Your task to perform on an android device: install app "Google Find My Device" Image 0: 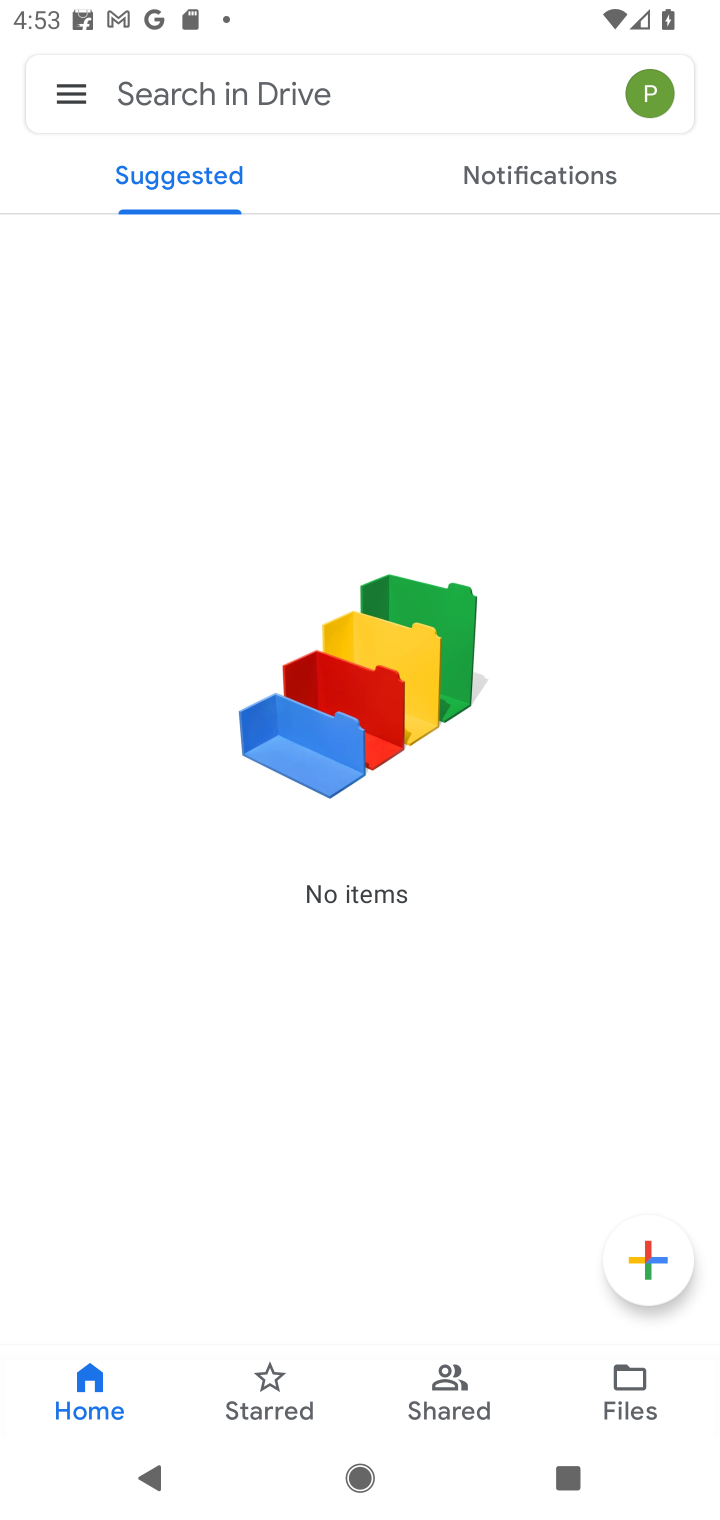
Step 0: press home button
Your task to perform on an android device: install app "Google Find My Device" Image 1: 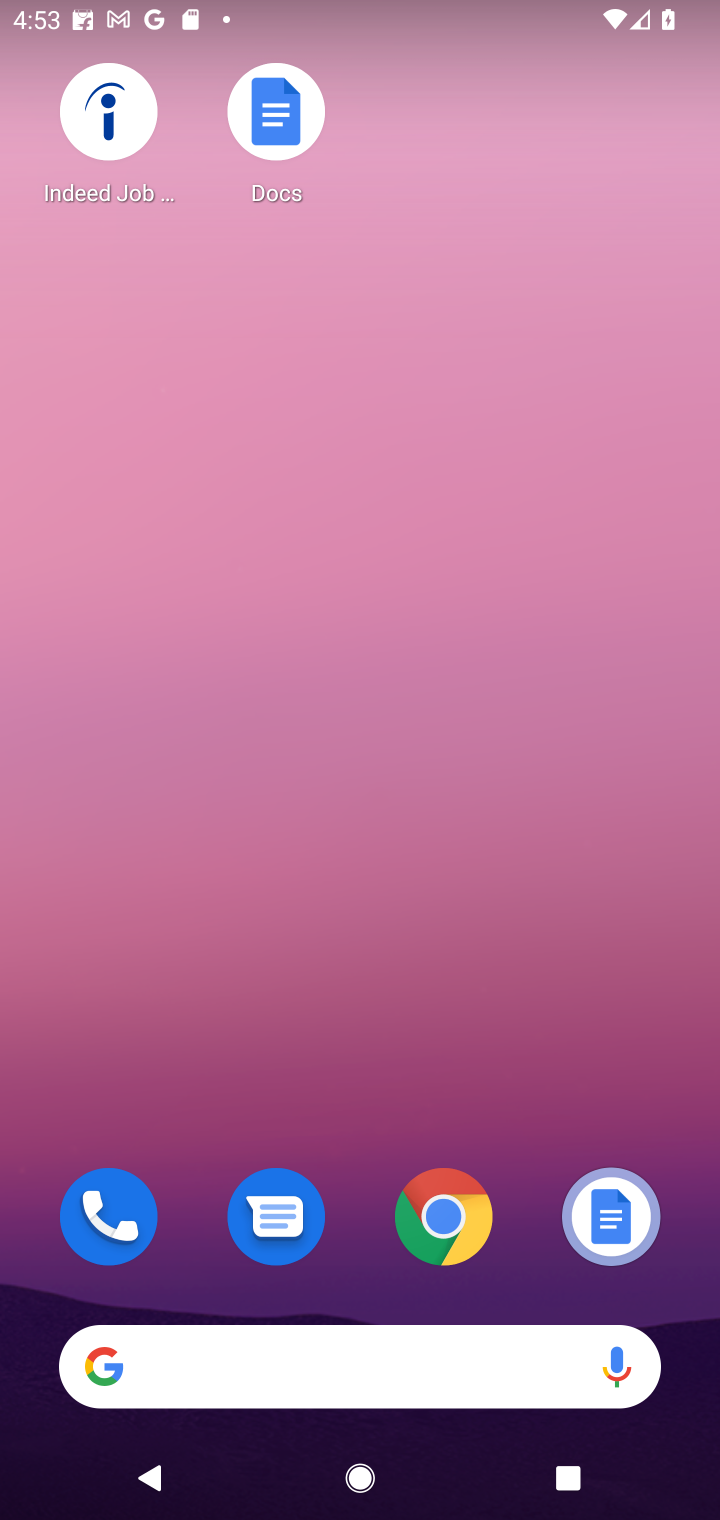
Step 1: drag from (469, 1099) to (463, 320)
Your task to perform on an android device: install app "Google Find My Device" Image 2: 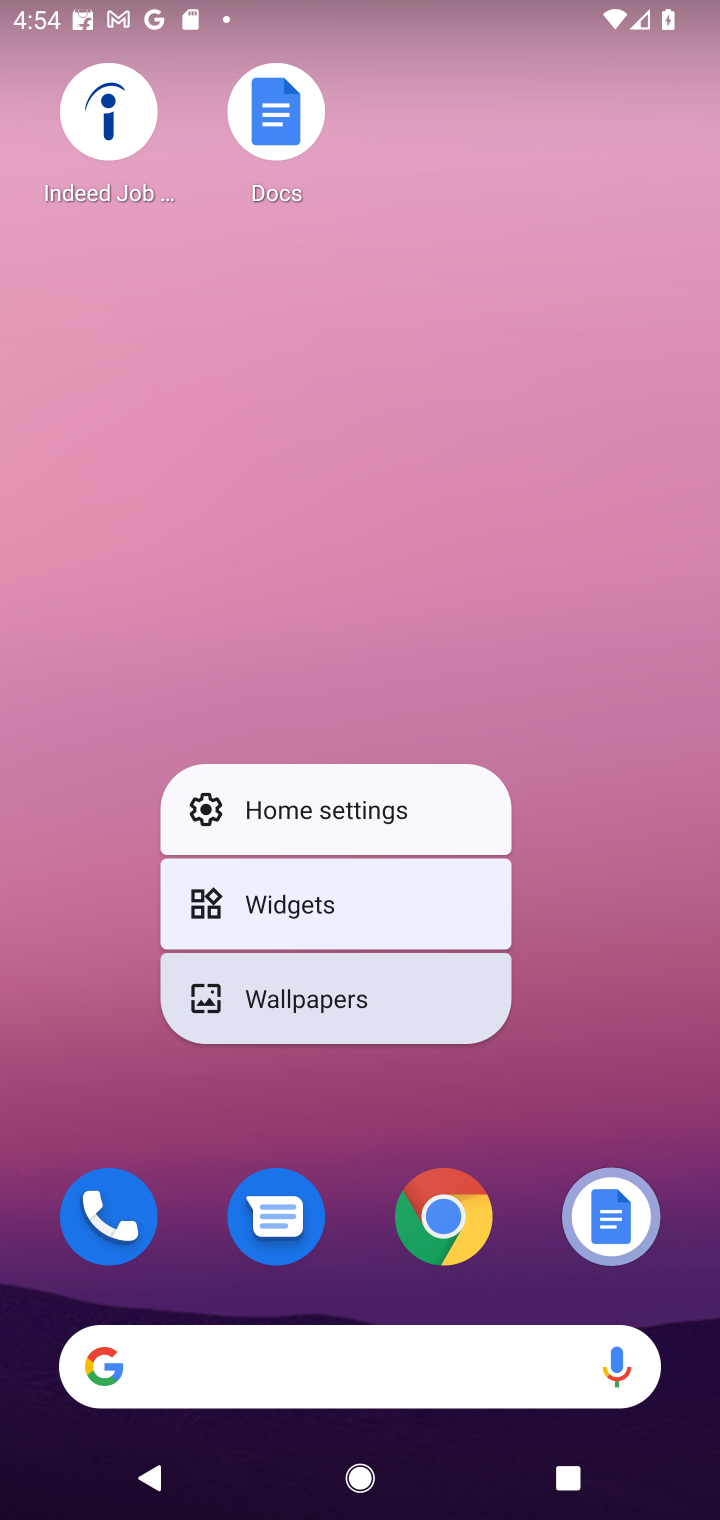
Step 2: click (398, 543)
Your task to perform on an android device: install app "Google Find My Device" Image 3: 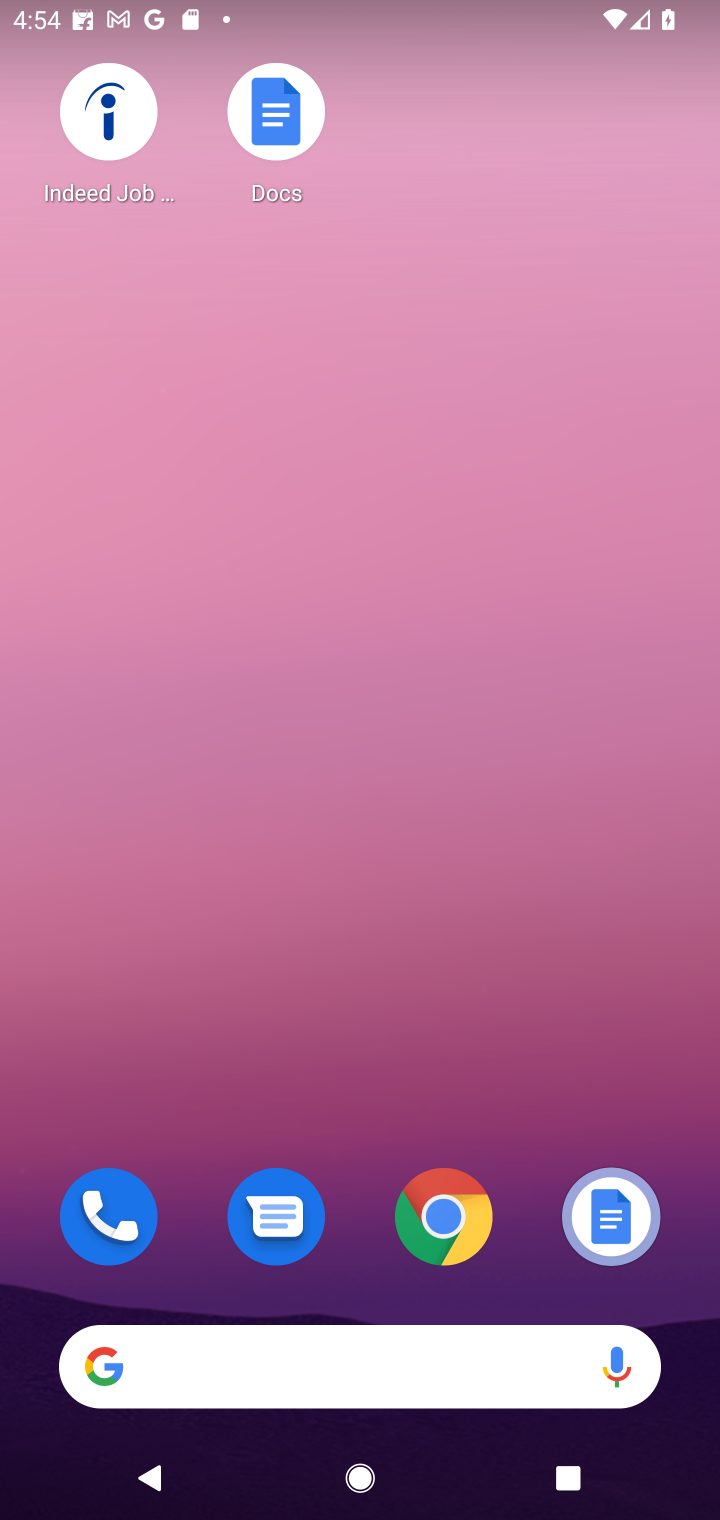
Step 3: drag from (387, 889) to (472, 231)
Your task to perform on an android device: install app "Google Find My Device" Image 4: 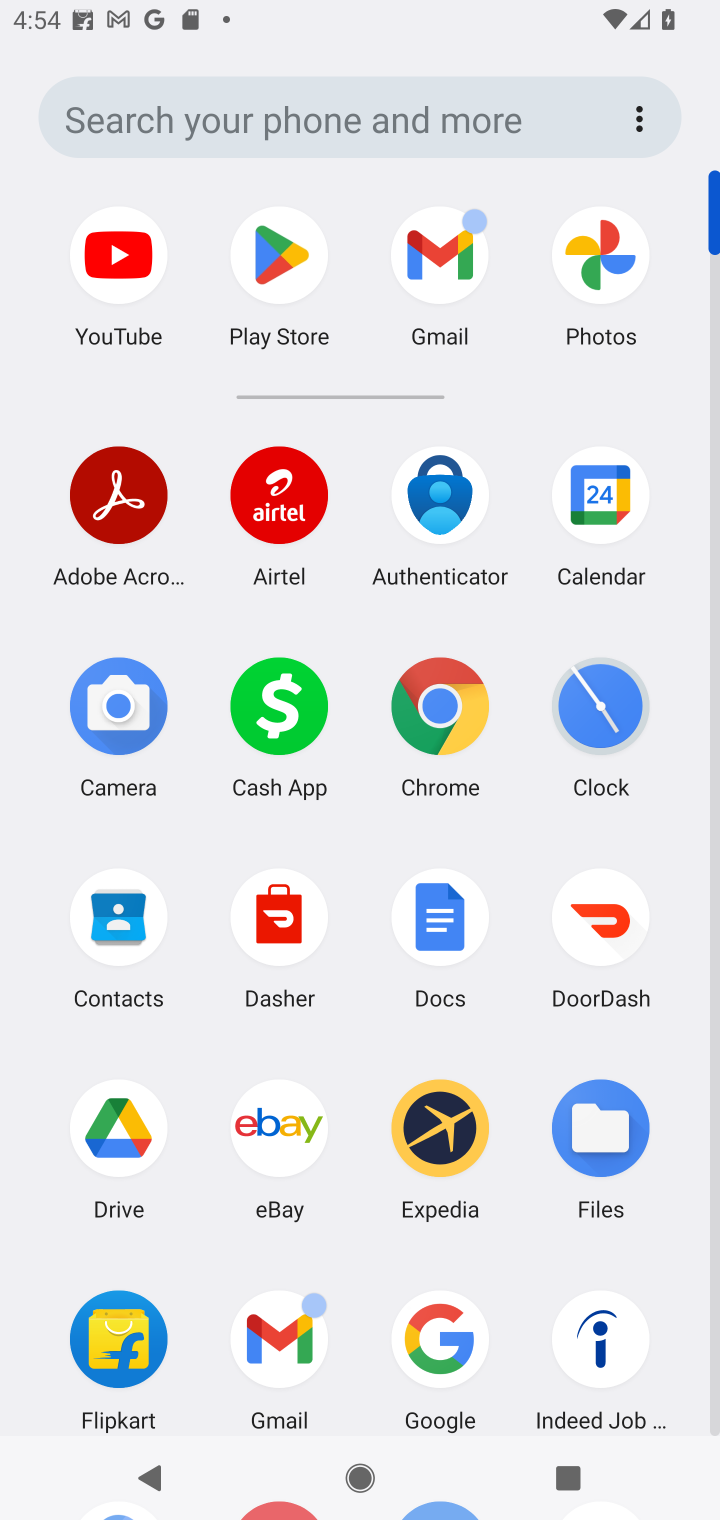
Step 4: click (286, 249)
Your task to perform on an android device: install app "Google Find My Device" Image 5: 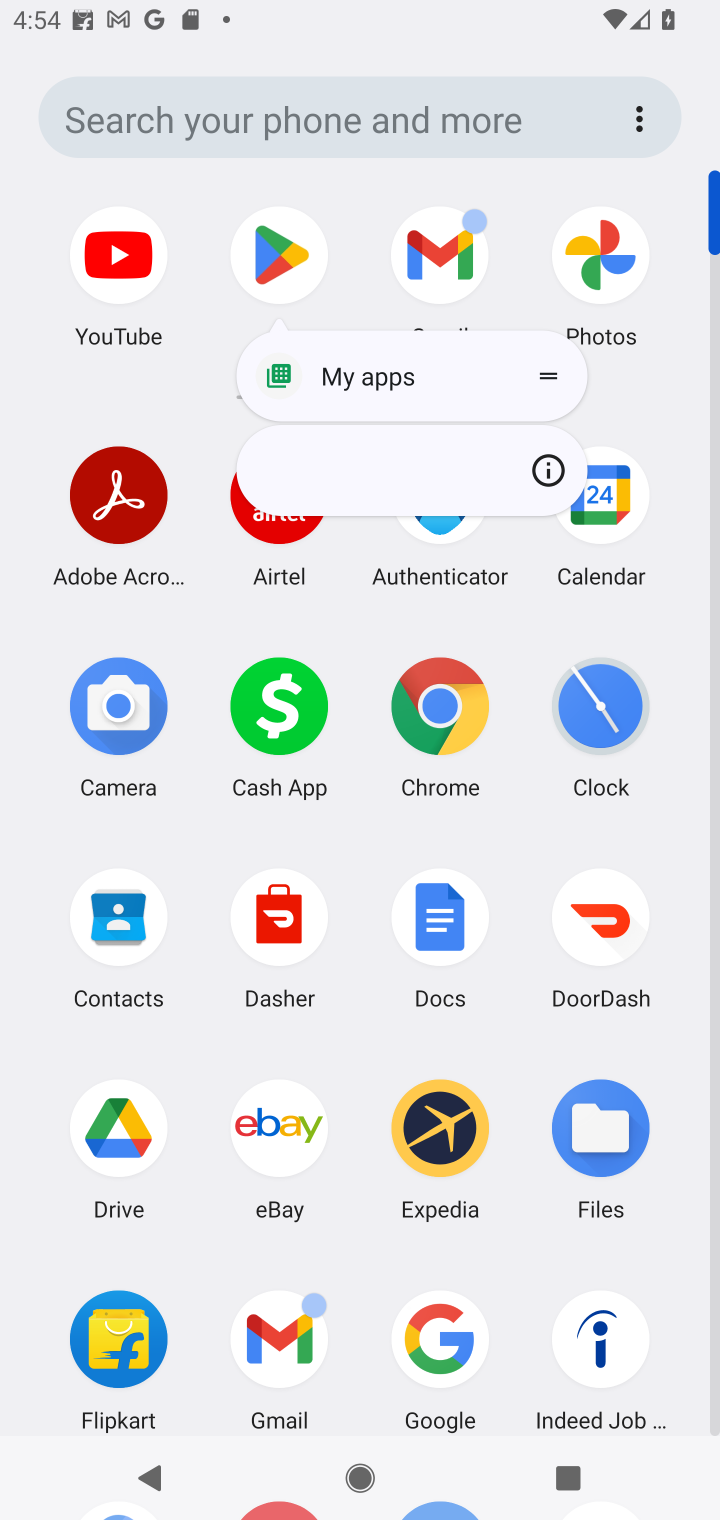
Step 5: click (289, 247)
Your task to perform on an android device: install app "Google Find My Device" Image 6: 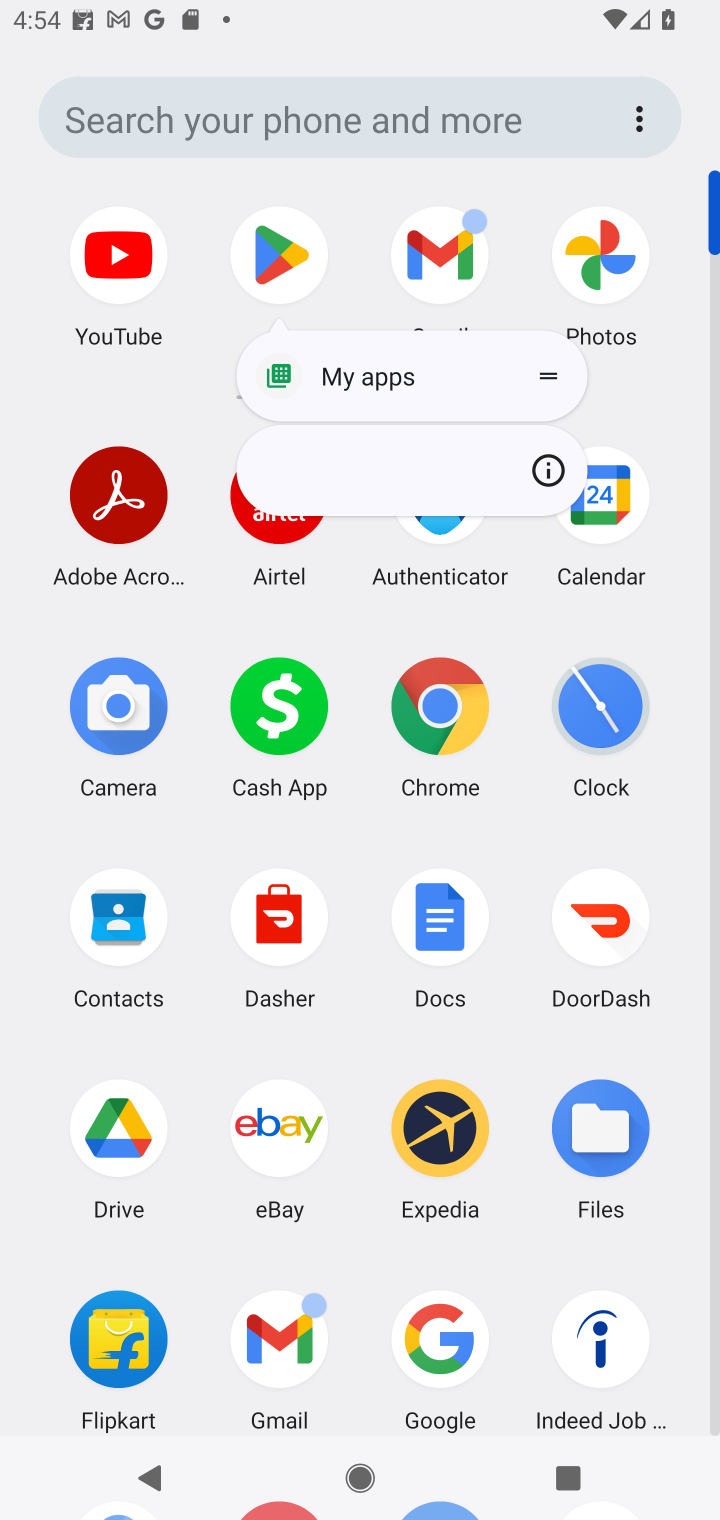
Step 6: click (268, 234)
Your task to perform on an android device: install app "Google Find My Device" Image 7: 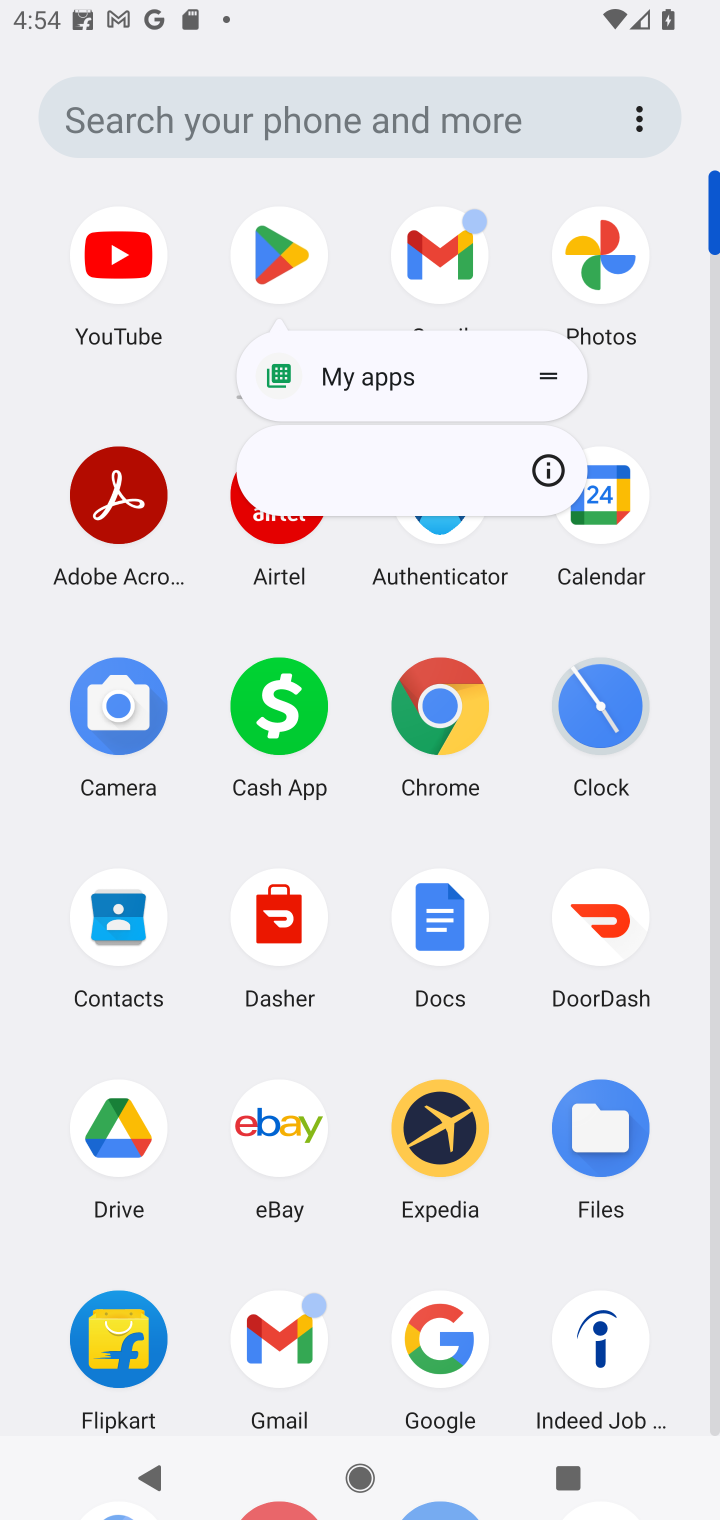
Step 7: click (263, 274)
Your task to perform on an android device: install app "Google Find My Device" Image 8: 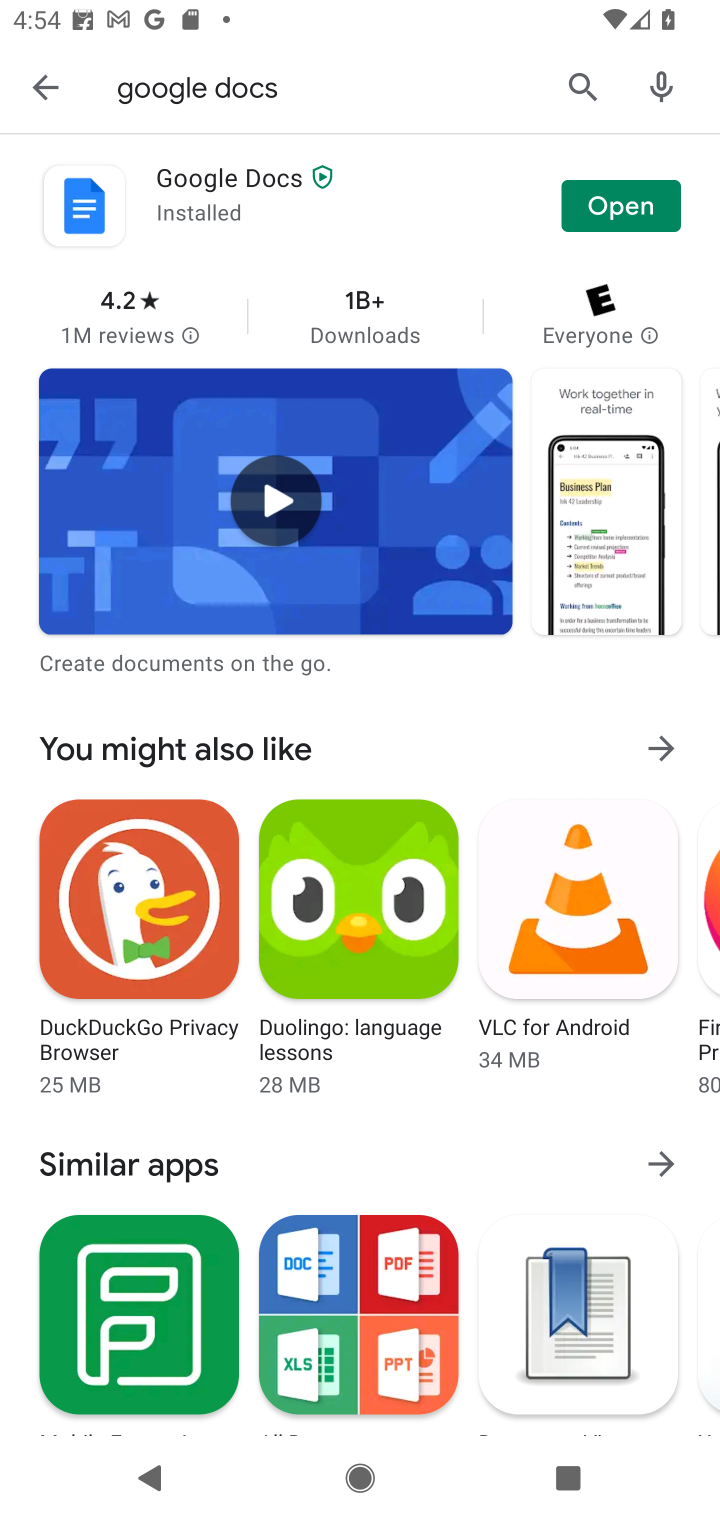
Step 8: click (589, 93)
Your task to perform on an android device: install app "Google Find My Device" Image 9: 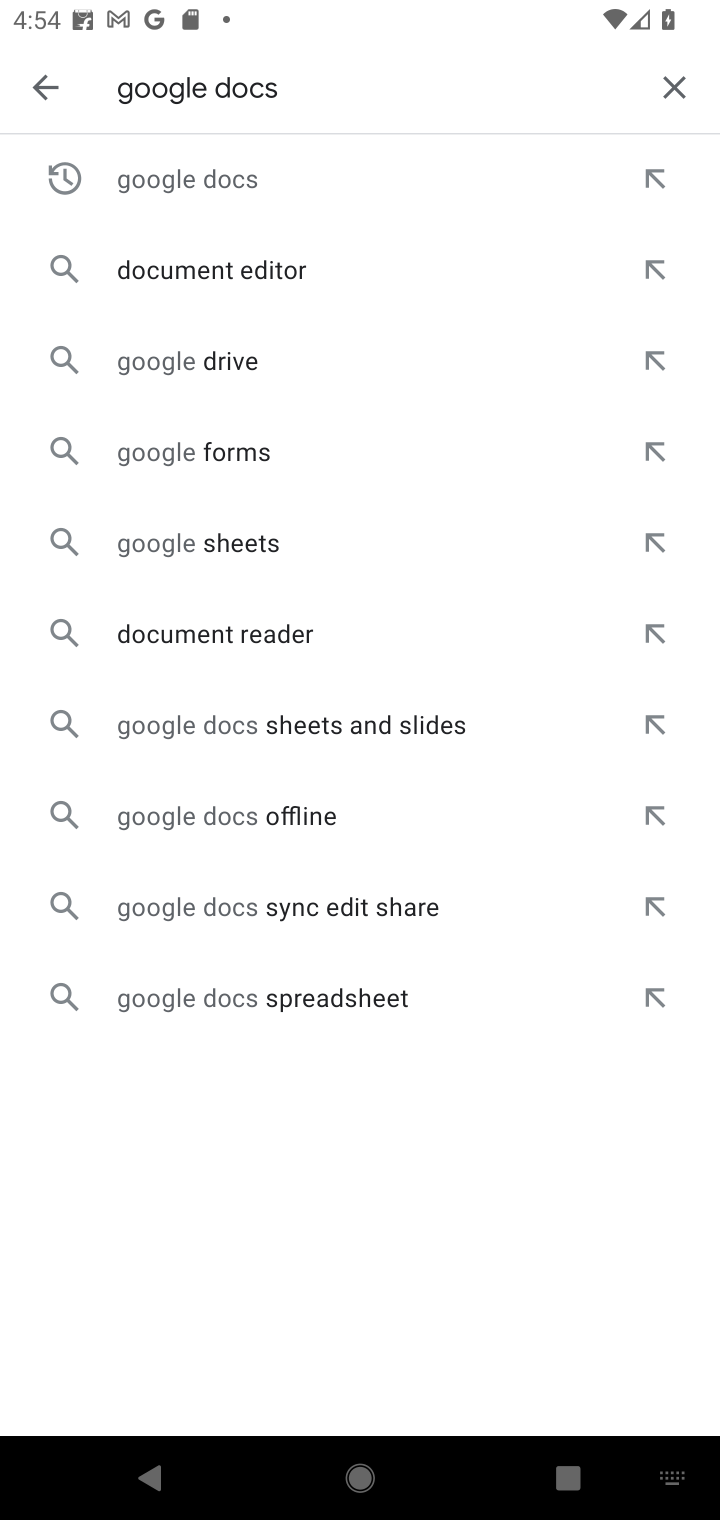
Step 9: click (667, 91)
Your task to perform on an android device: install app "Google Find My Device" Image 10: 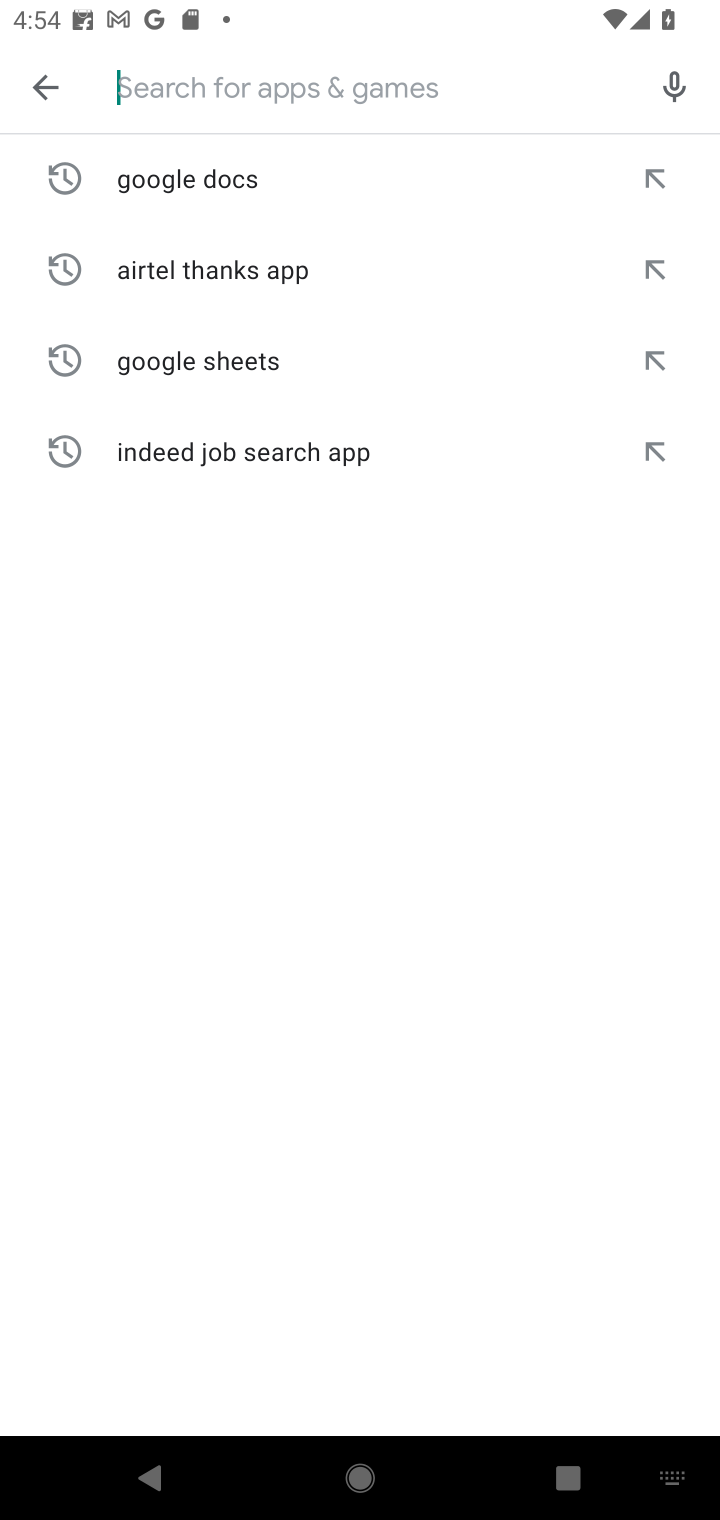
Step 10: type "Google Find My Device"
Your task to perform on an android device: install app "Google Find My Device" Image 11: 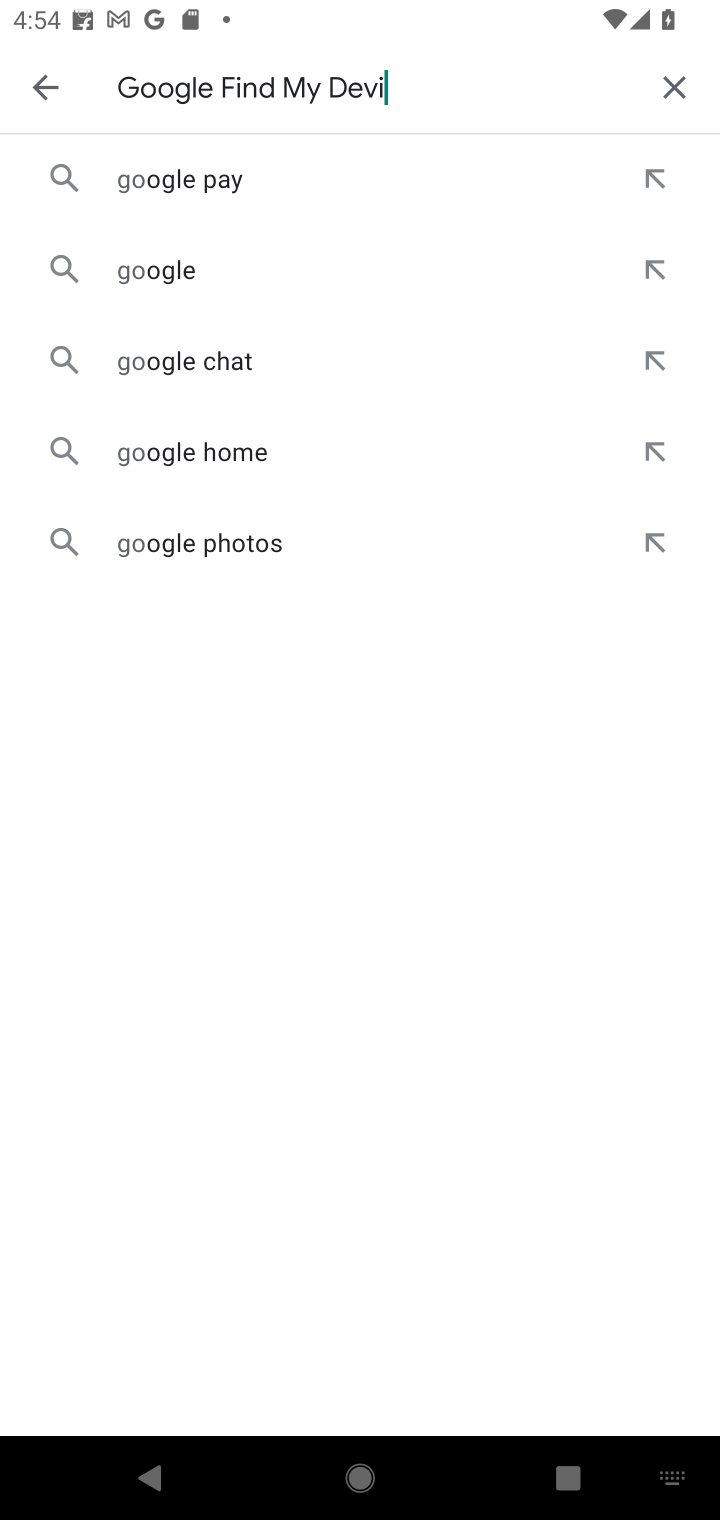
Step 11: type ""
Your task to perform on an android device: install app "Google Find My Device" Image 12: 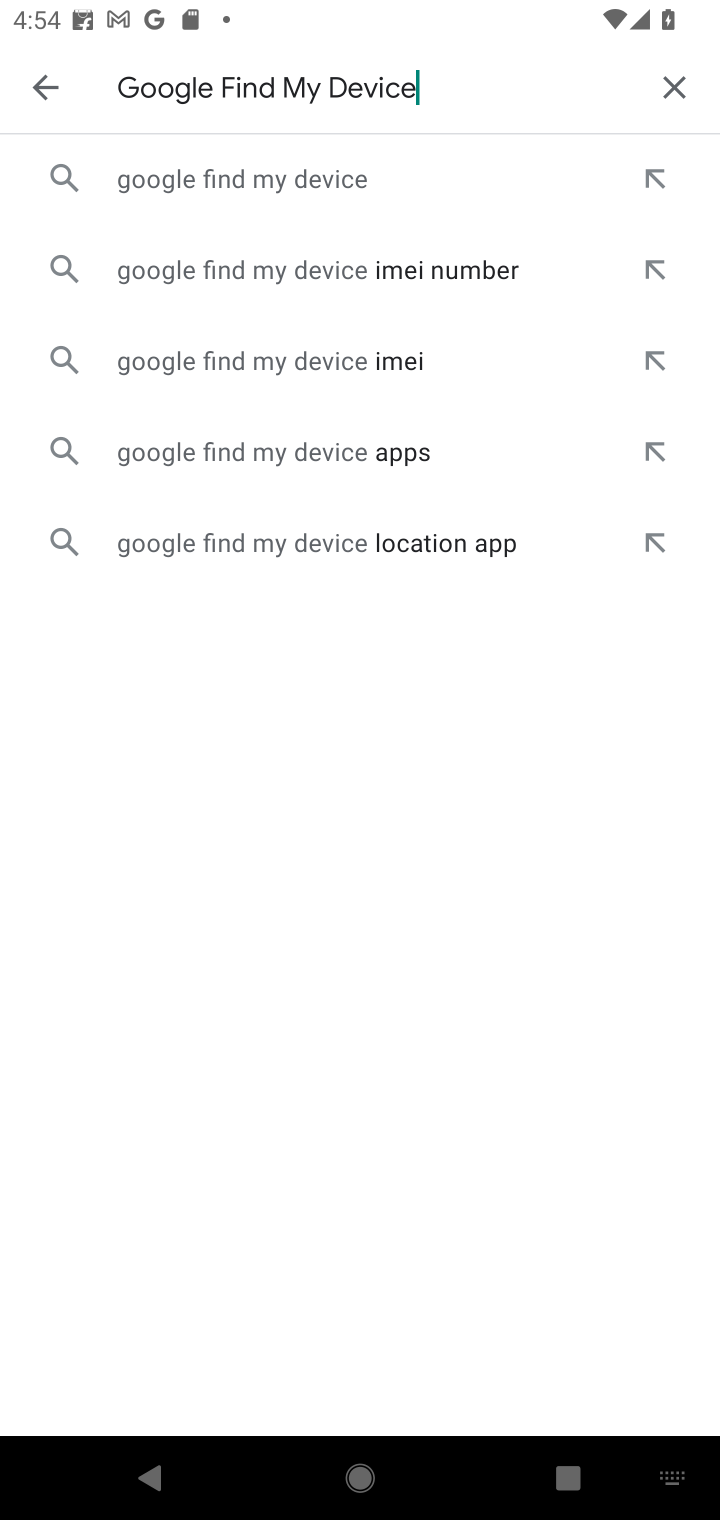
Step 12: click (292, 192)
Your task to perform on an android device: install app "Google Find My Device" Image 13: 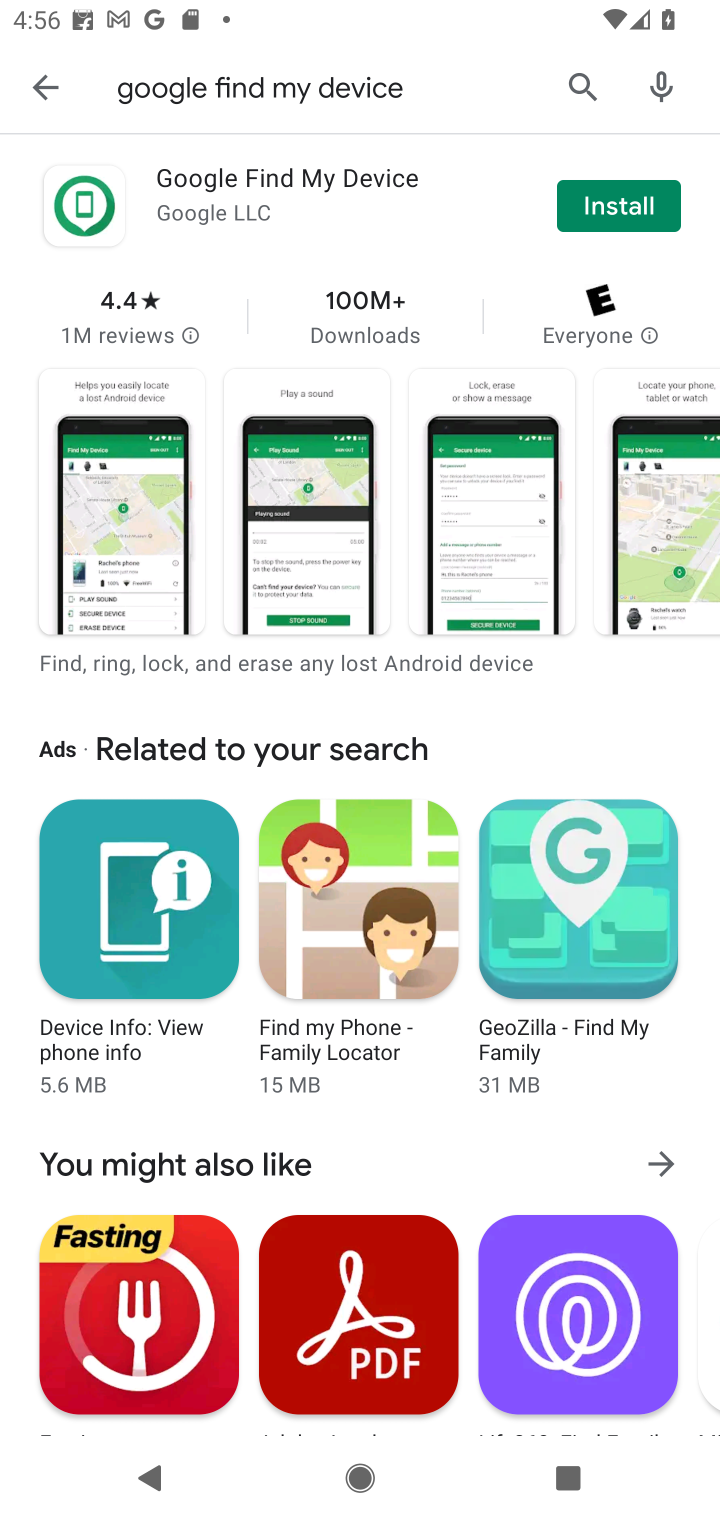
Step 13: click (597, 204)
Your task to perform on an android device: install app "Google Find My Device" Image 14: 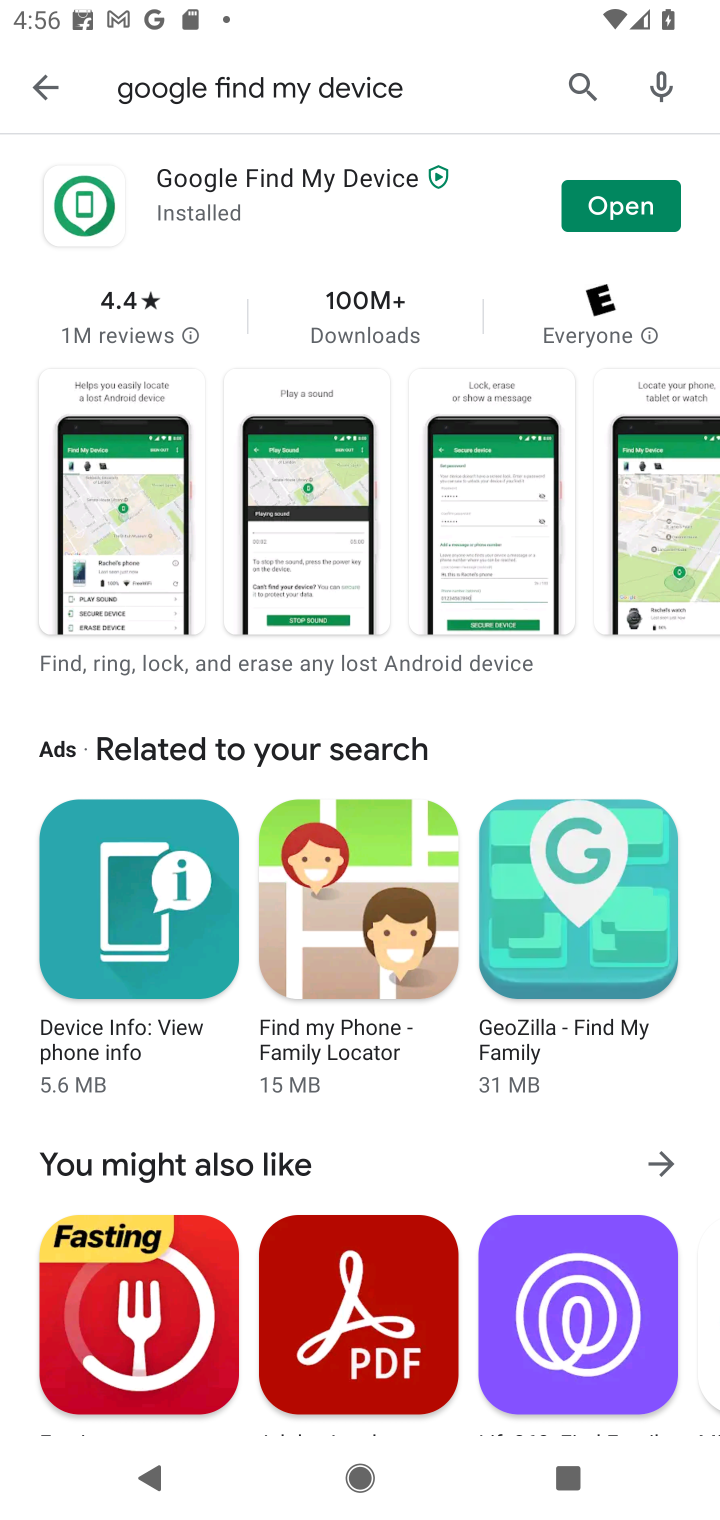
Step 14: task complete